Your task to perform on an android device: Open Google Chrome and click the shortcut for Amazon.com Image 0: 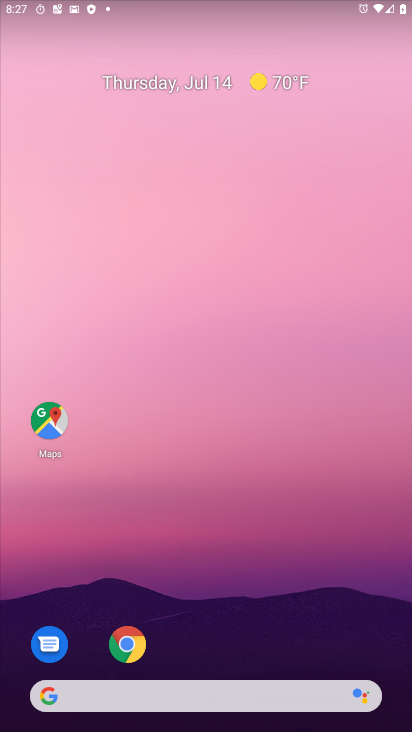
Step 0: click (133, 648)
Your task to perform on an android device: Open Google Chrome and click the shortcut for Amazon.com Image 1: 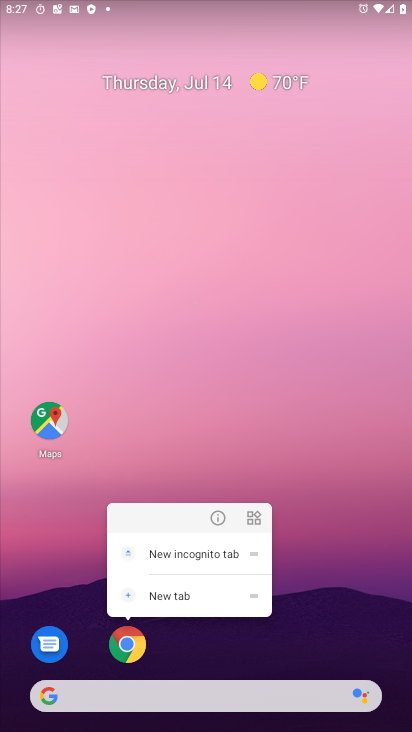
Step 1: click (130, 648)
Your task to perform on an android device: Open Google Chrome and click the shortcut for Amazon.com Image 2: 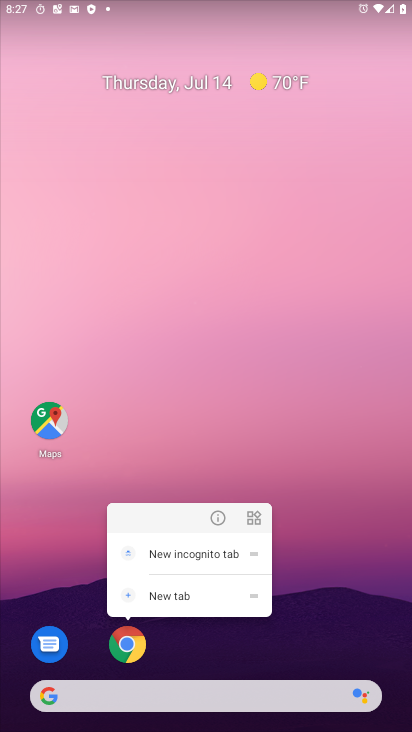
Step 2: click (126, 648)
Your task to perform on an android device: Open Google Chrome and click the shortcut for Amazon.com Image 3: 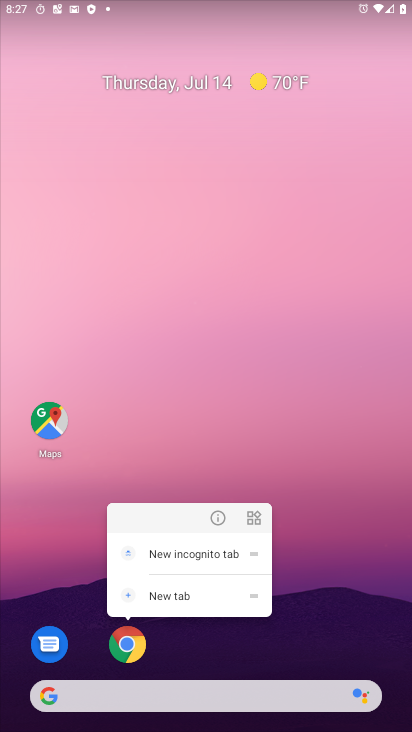
Step 3: click (131, 643)
Your task to perform on an android device: Open Google Chrome and click the shortcut for Amazon.com Image 4: 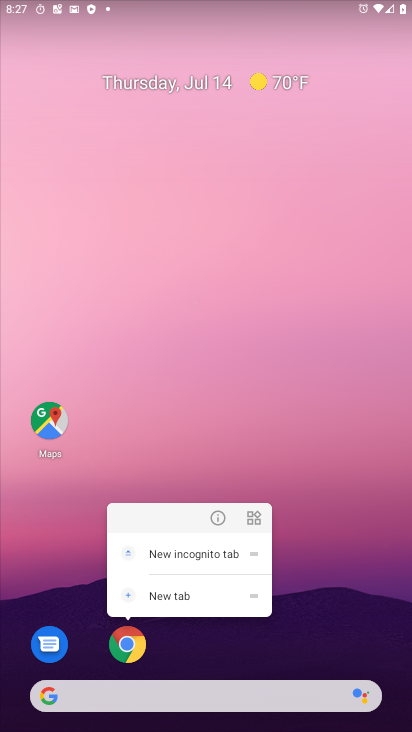
Step 4: click (131, 648)
Your task to perform on an android device: Open Google Chrome and click the shortcut for Amazon.com Image 5: 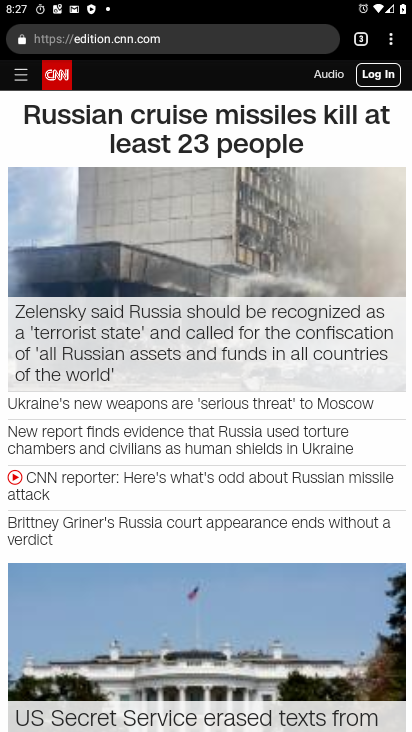
Step 5: drag from (393, 46) to (300, 129)
Your task to perform on an android device: Open Google Chrome and click the shortcut for Amazon.com Image 6: 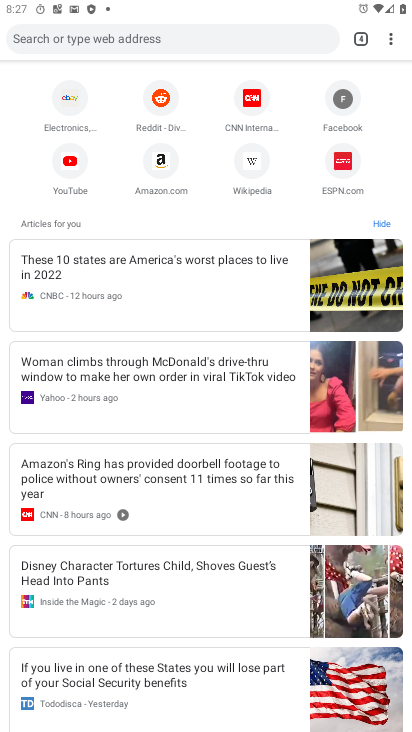
Step 6: click (160, 160)
Your task to perform on an android device: Open Google Chrome and click the shortcut for Amazon.com Image 7: 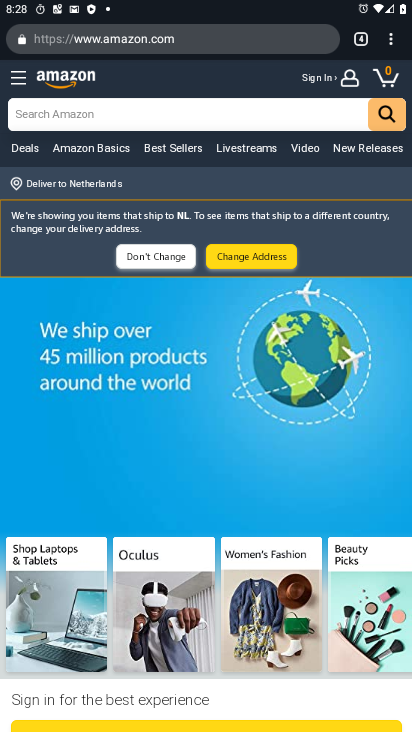
Step 7: task complete